Your task to perform on an android device: open app "Facebook Messenger" (install if not already installed) Image 0: 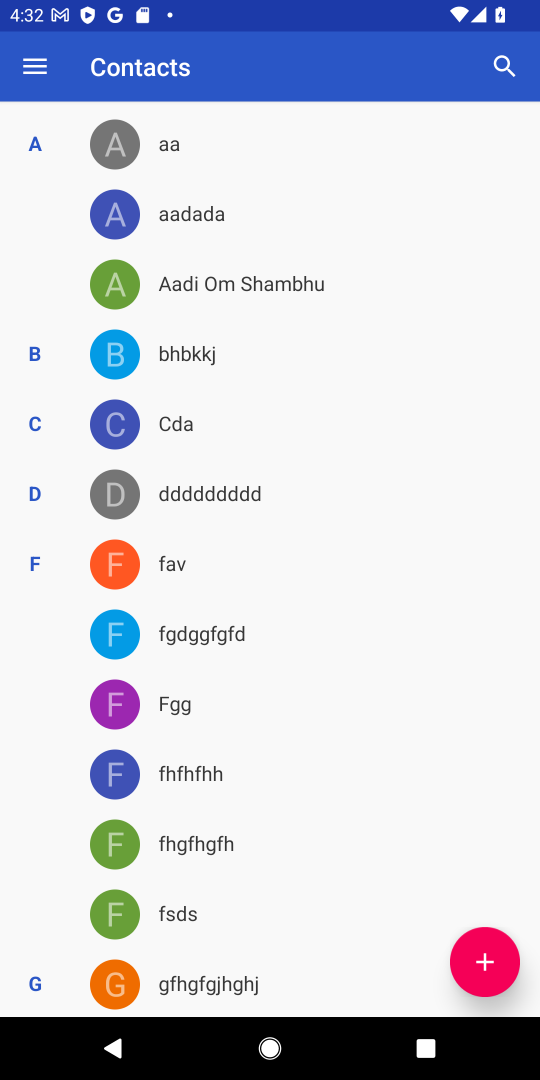
Step 0: press home button
Your task to perform on an android device: open app "Facebook Messenger" (install if not already installed) Image 1: 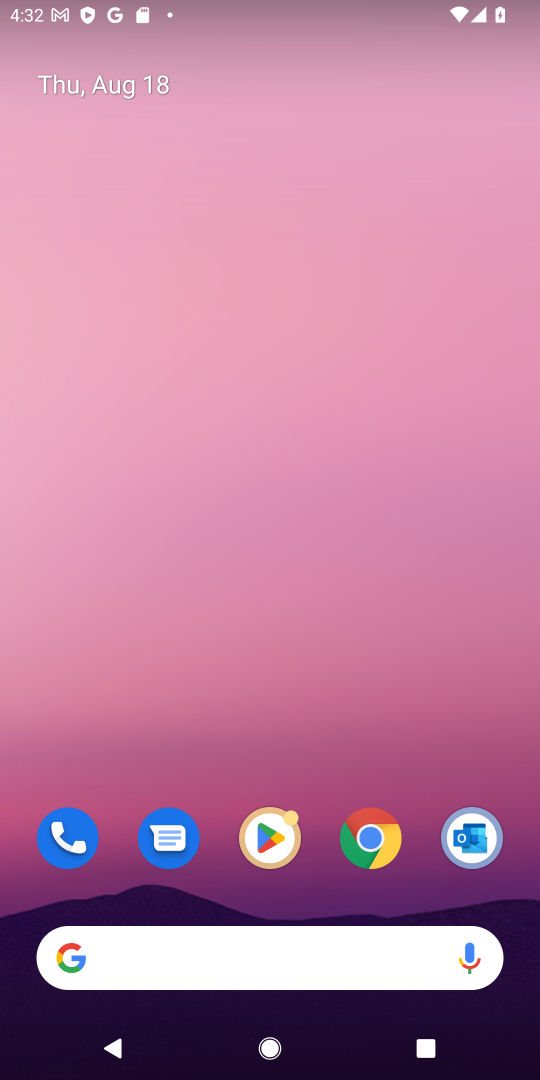
Step 1: drag from (234, 979) to (270, 165)
Your task to perform on an android device: open app "Facebook Messenger" (install if not already installed) Image 2: 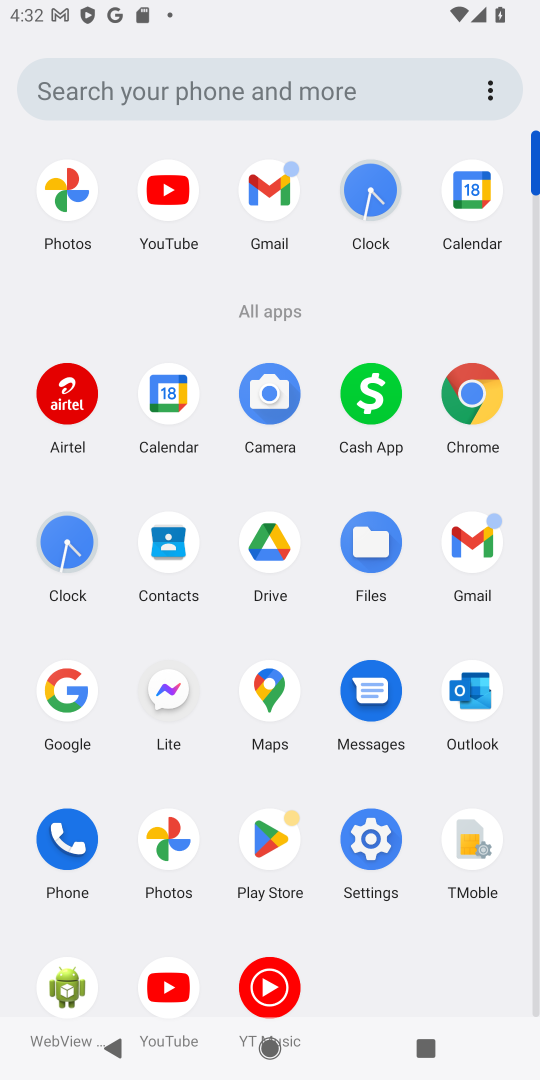
Step 2: click (272, 846)
Your task to perform on an android device: open app "Facebook Messenger" (install if not already installed) Image 3: 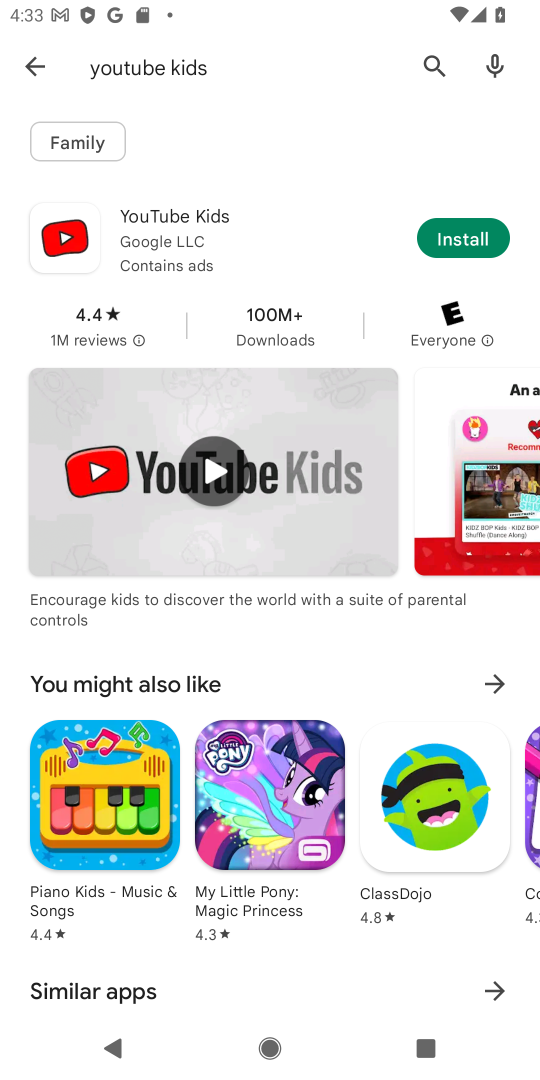
Step 3: press back button
Your task to perform on an android device: open app "Facebook Messenger" (install if not already installed) Image 4: 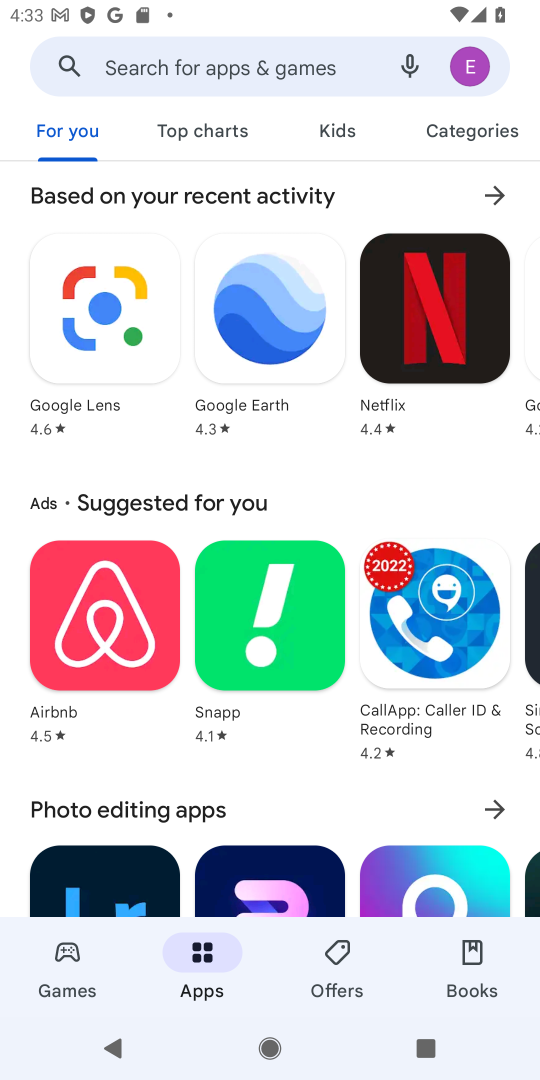
Step 4: click (232, 73)
Your task to perform on an android device: open app "Facebook Messenger" (install if not already installed) Image 5: 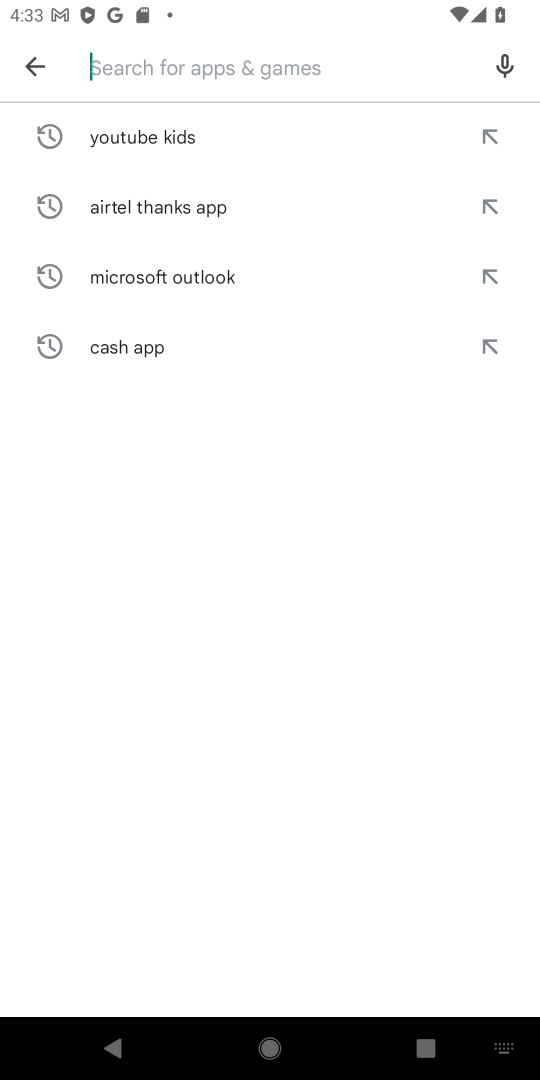
Step 5: type "Facebook Messenger"
Your task to perform on an android device: open app "Facebook Messenger" (install if not already installed) Image 6: 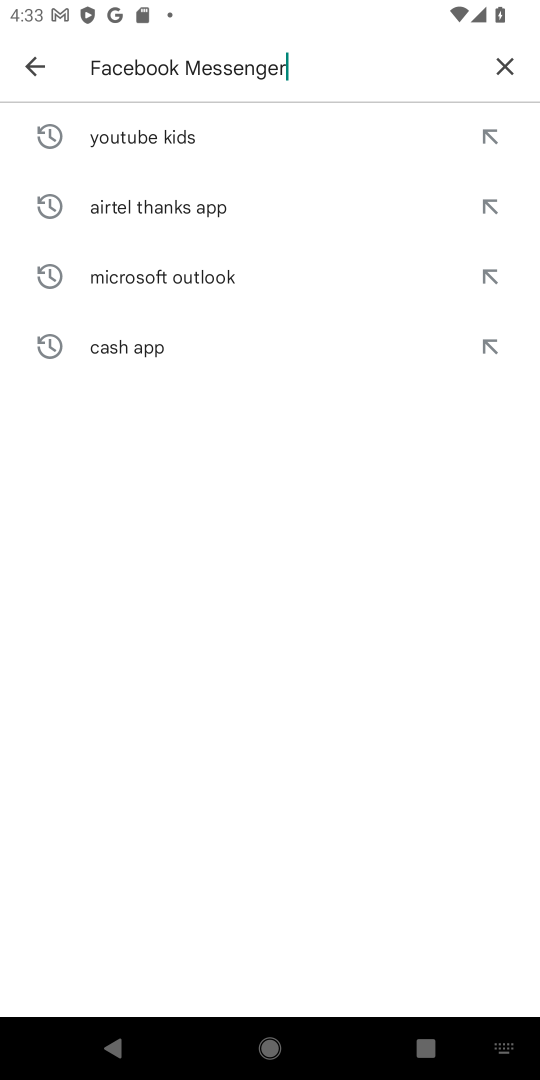
Step 6: type ""
Your task to perform on an android device: open app "Facebook Messenger" (install if not already installed) Image 7: 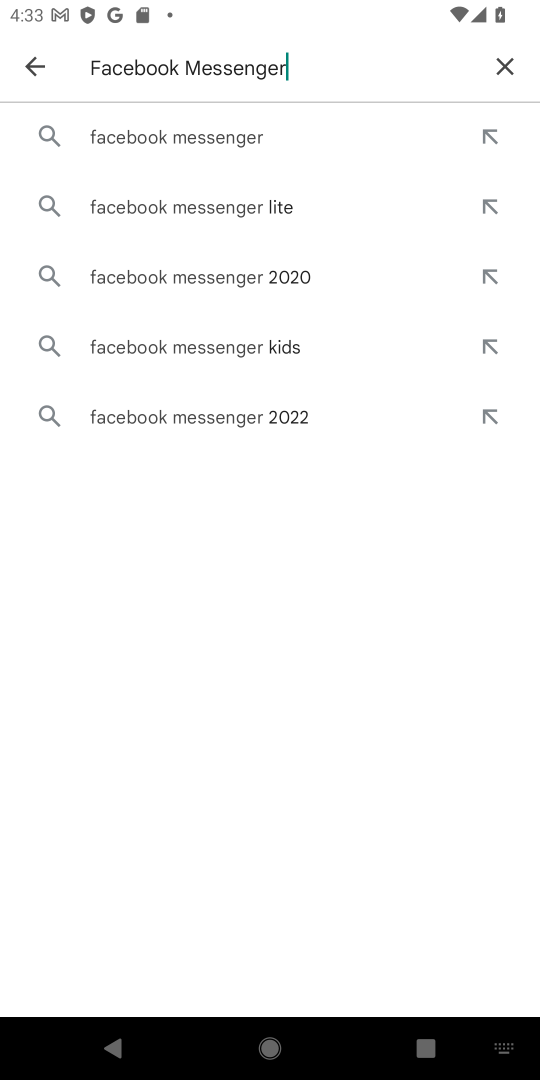
Step 7: click (233, 137)
Your task to perform on an android device: open app "Facebook Messenger" (install if not already installed) Image 8: 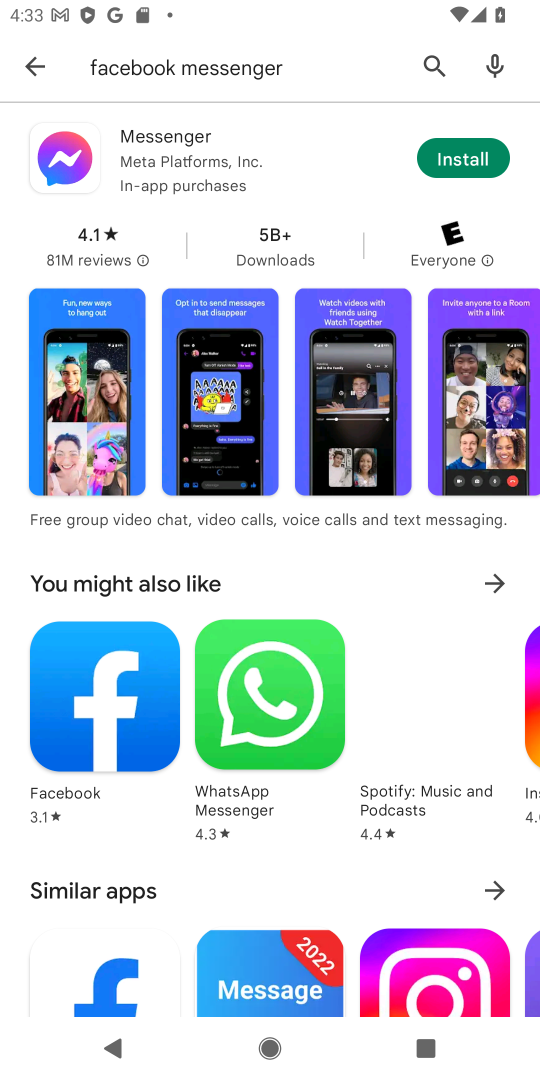
Step 8: click (469, 146)
Your task to perform on an android device: open app "Facebook Messenger" (install if not already installed) Image 9: 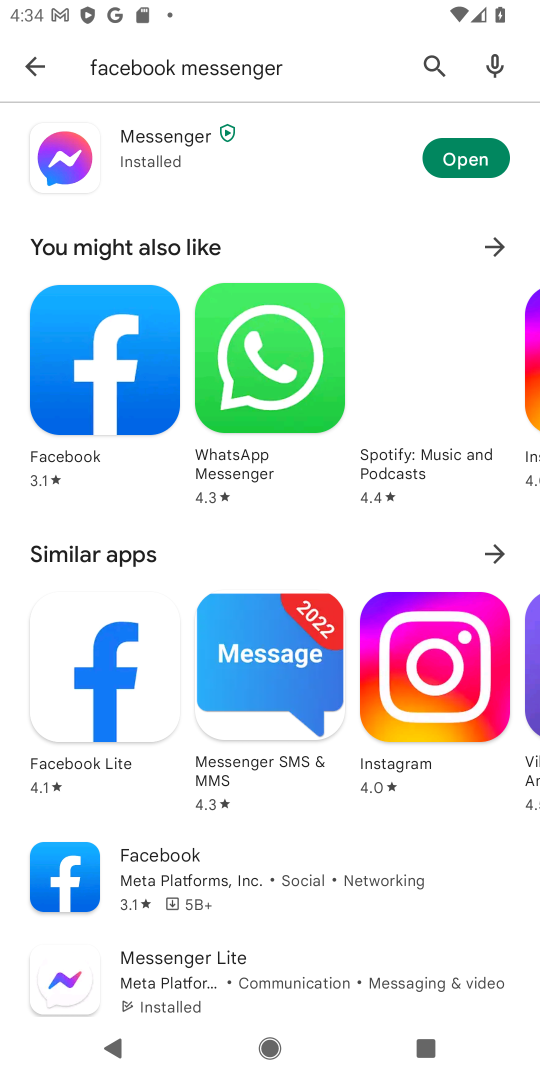
Step 9: click (456, 168)
Your task to perform on an android device: open app "Facebook Messenger" (install if not already installed) Image 10: 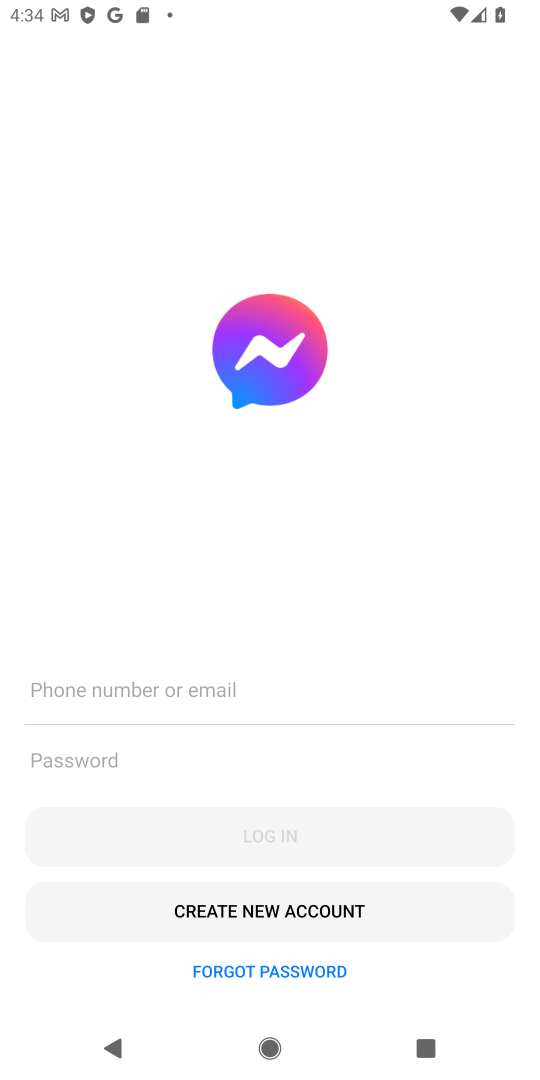
Step 10: task complete